Your task to perform on an android device: When is my next meeting? Image 0: 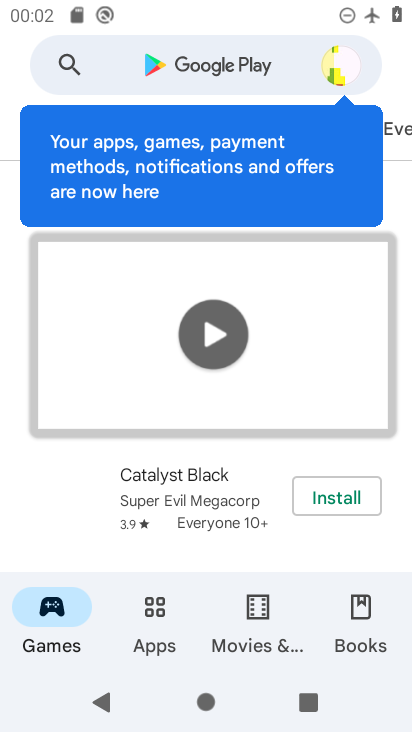
Step 0: press home button
Your task to perform on an android device: When is my next meeting? Image 1: 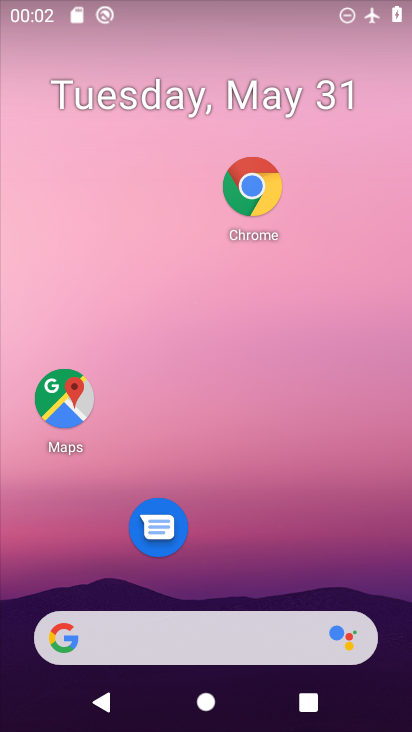
Step 1: drag from (248, 572) to (242, 244)
Your task to perform on an android device: When is my next meeting? Image 2: 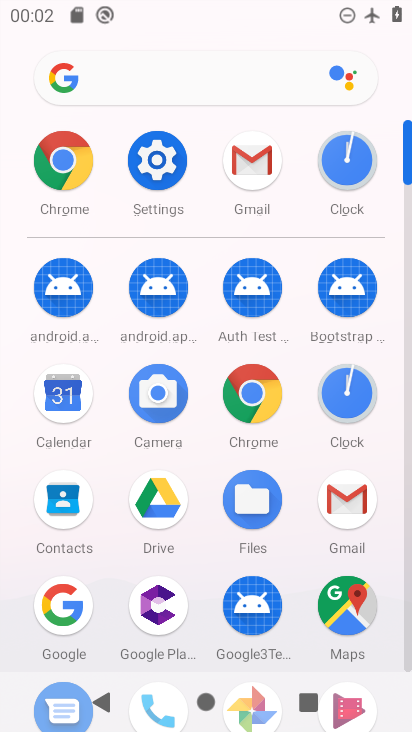
Step 2: click (74, 384)
Your task to perform on an android device: When is my next meeting? Image 3: 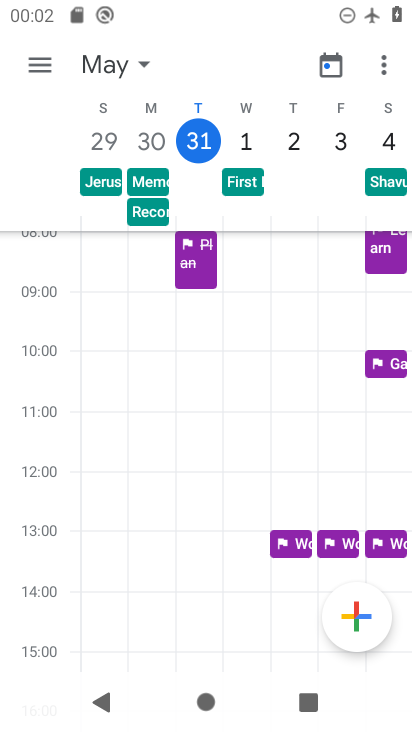
Step 3: click (249, 138)
Your task to perform on an android device: When is my next meeting? Image 4: 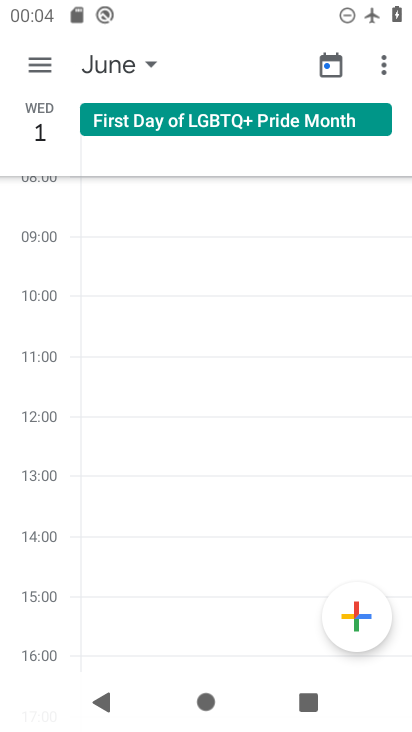
Step 4: task complete